Your task to perform on an android device: create a new album in the google photos Image 0: 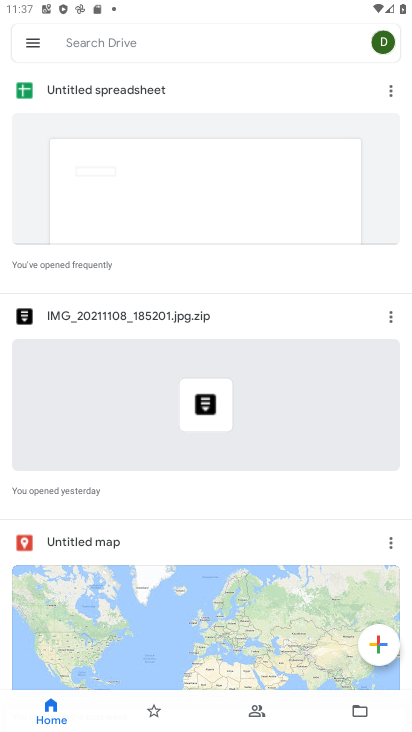
Step 0: press home button
Your task to perform on an android device: create a new album in the google photos Image 1: 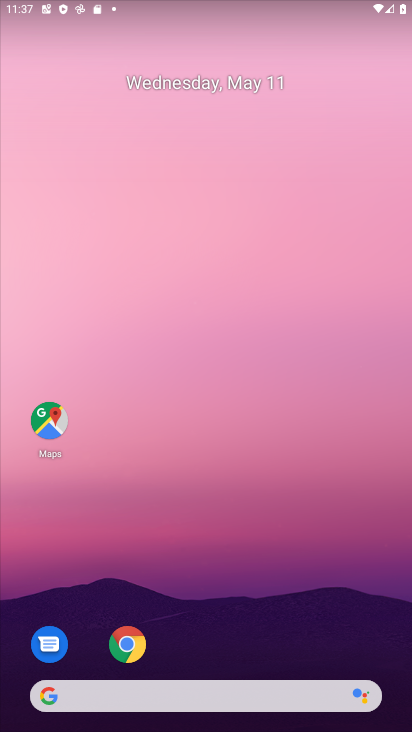
Step 1: drag from (264, 593) to (262, 131)
Your task to perform on an android device: create a new album in the google photos Image 2: 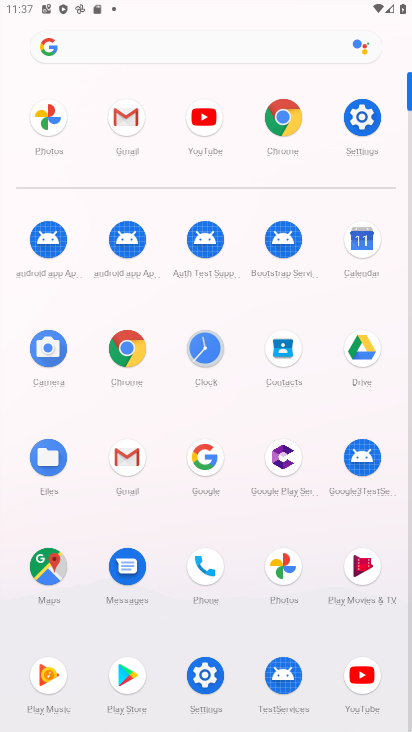
Step 2: click (285, 582)
Your task to perform on an android device: create a new album in the google photos Image 3: 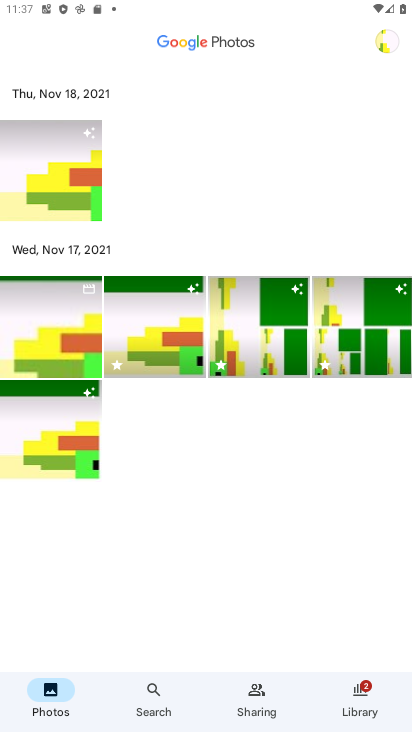
Step 3: click (390, 32)
Your task to perform on an android device: create a new album in the google photos Image 4: 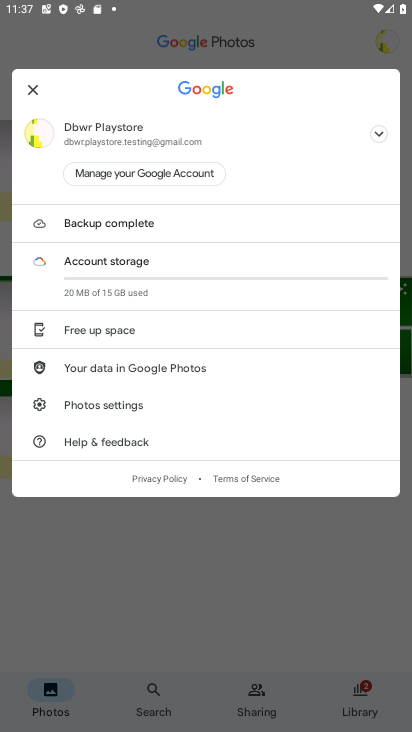
Step 4: click (38, 95)
Your task to perform on an android device: create a new album in the google photos Image 5: 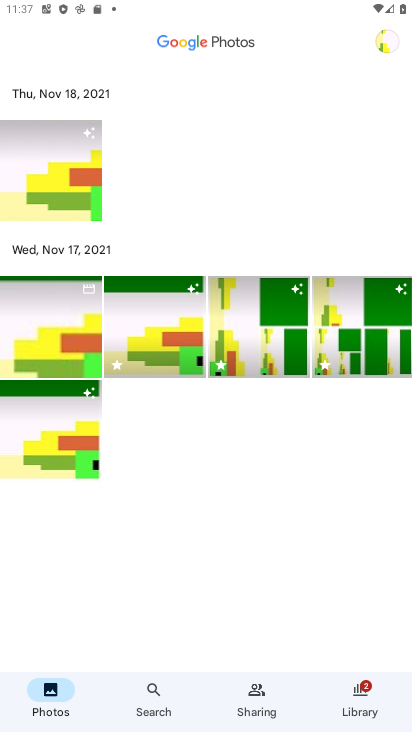
Step 5: click (358, 699)
Your task to perform on an android device: create a new album in the google photos Image 6: 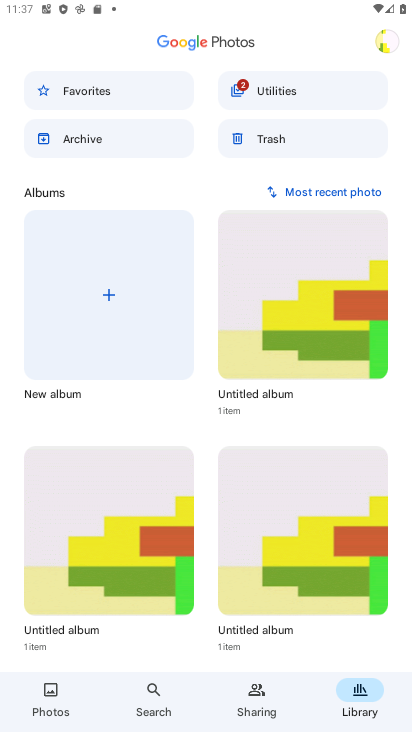
Step 6: click (105, 287)
Your task to perform on an android device: create a new album in the google photos Image 7: 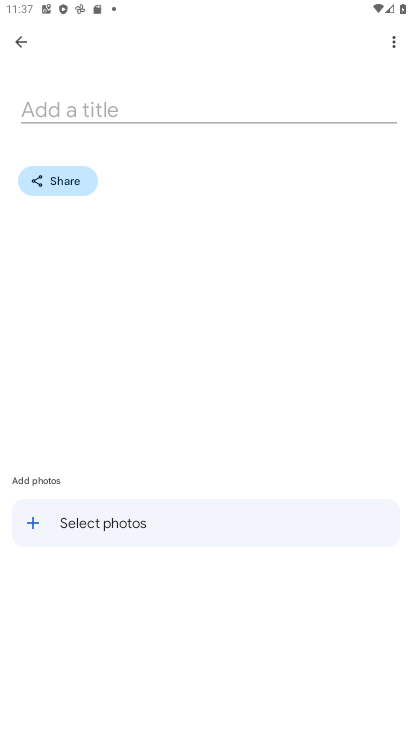
Step 7: click (115, 100)
Your task to perform on an android device: create a new album in the google photos Image 8: 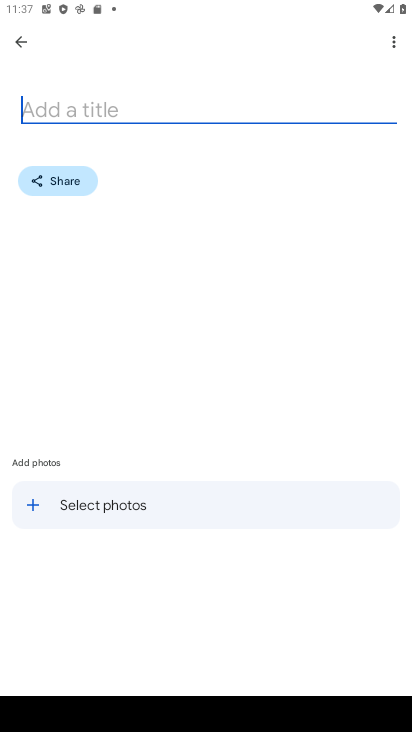
Step 8: type "addsfcsda"
Your task to perform on an android device: create a new album in the google photos Image 9: 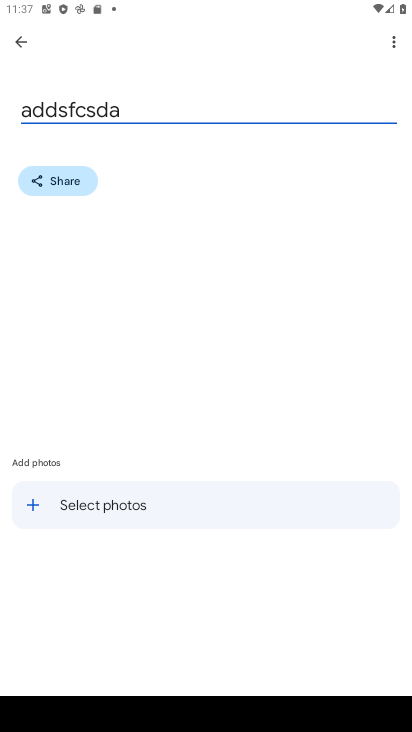
Step 9: click (119, 496)
Your task to perform on an android device: create a new album in the google photos Image 10: 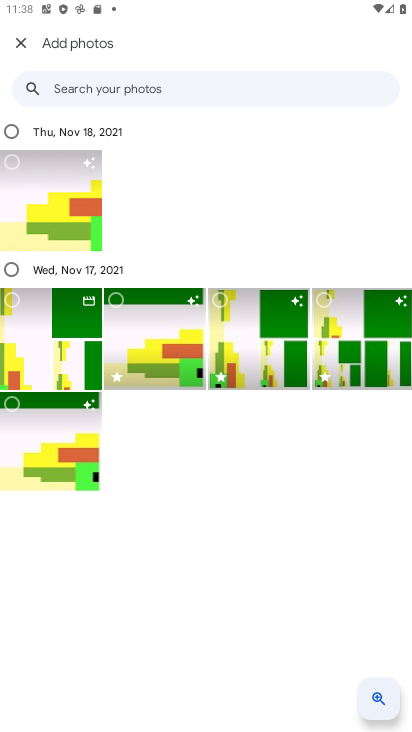
Step 10: click (8, 124)
Your task to perform on an android device: create a new album in the google photos Image 11: 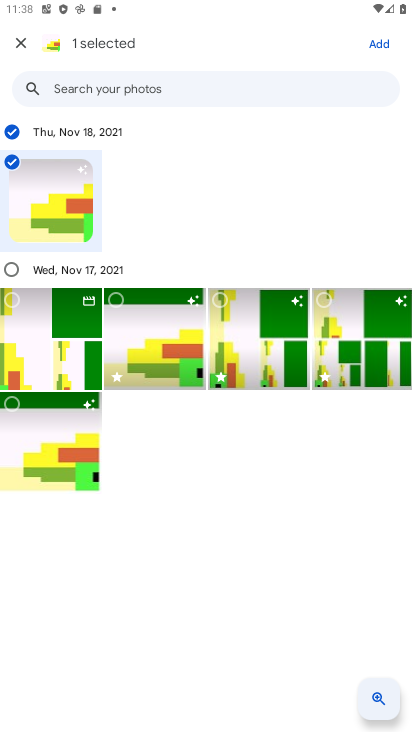
Step 11: click (11, 274)
Your task to perform on an android device: create a new album in the google photos Image 12: 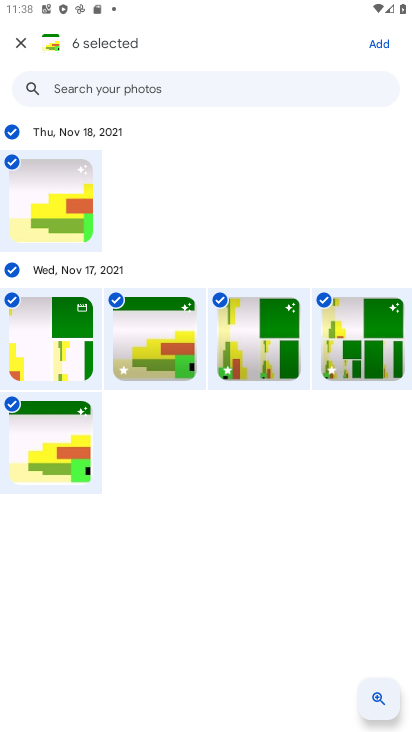
Step 12: task complete